Your task to perform on an android device: change keyboard looks Image 0: 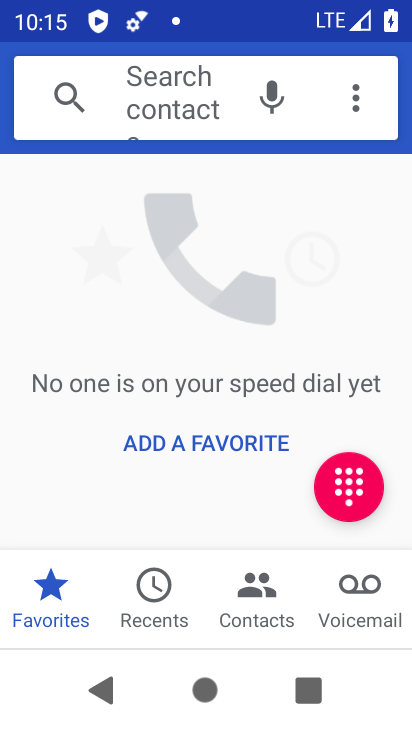
Step 0: press back button
Your task to perform on an android device: change keyboard looks Image 1: 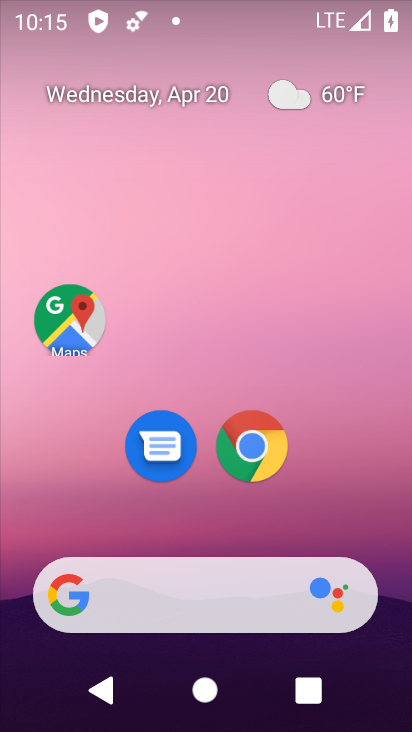
Step 1: drag from (348, 533) to (234, 16)
Your task to perform on an android device: change keyboard looks Image 2: 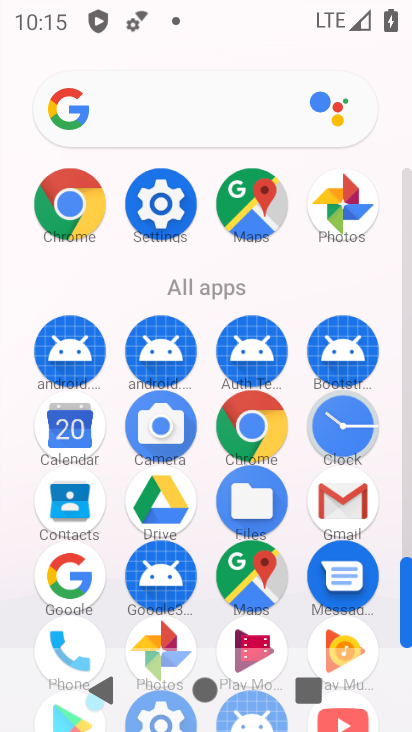
Step 2: click (161, 196)
Your task to perform on an android device: change keyboard looks Image 3: 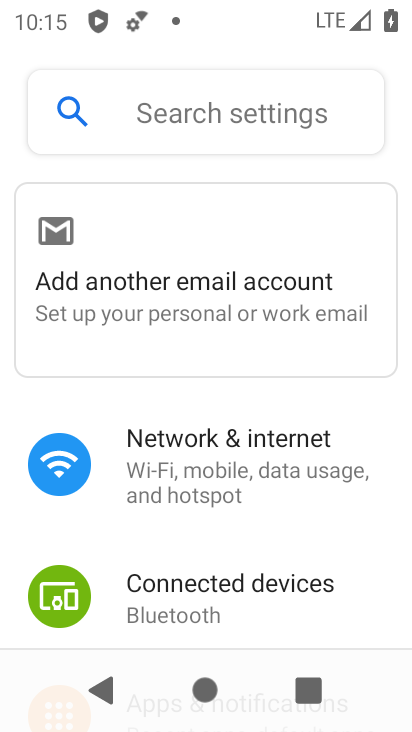
Step 3: drag from (299, 549) to (275, 139)
Your task to perform on an android device: change keyboard looks Image 4: 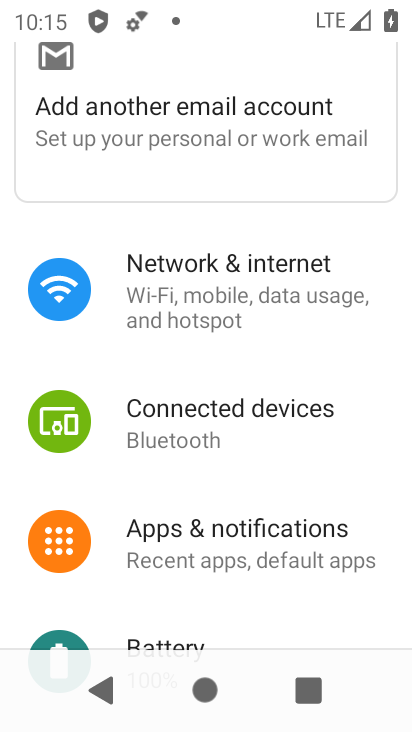
Step 4: drag from (293, 517) to (288, 144)
Your task to perform on an android device: change keyboard looks Image 5: 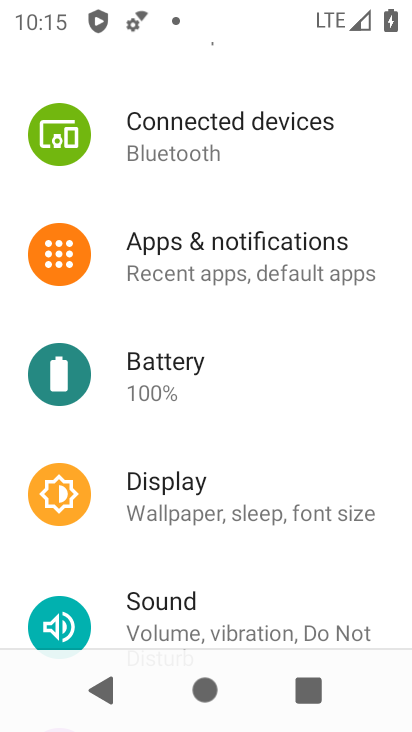
Step 5: drag from (298, 547) to (298, 198)
Your task to perform on an android device: change keyboard looks Image 6: 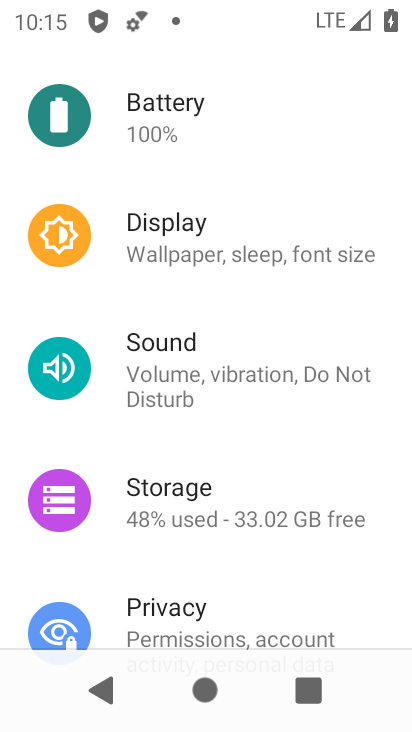
Step 6: drag from (241, 533) to (226, 107)
Your task to perform on an android device: change keyboard looks Image 7: 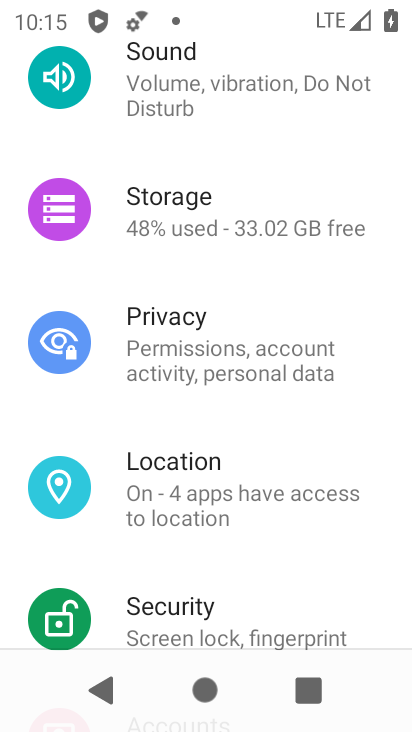
Step 7: drag from (272, 548) to (236, 93)
Your task to perform on an android device: change keyboard looks Image 8: 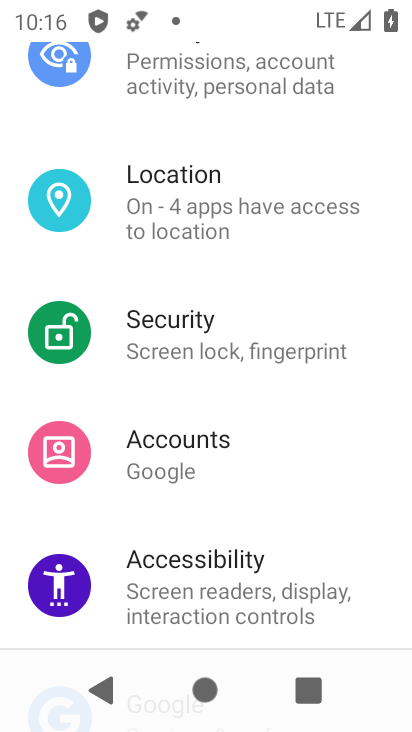
Step 8: drag from (257, 524) to (233, 109)
Your task to perform on an android device: change keyboard looks Image 9: 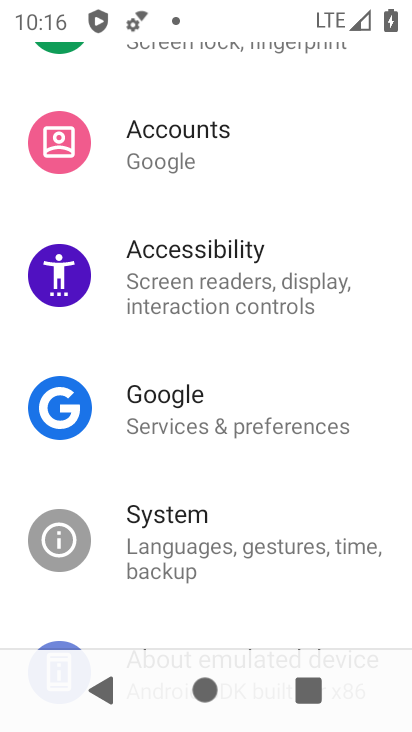
Step 9: drag from (268, 470) to (248, 125)
Your task to perform on an android device: change keyboard looks Image 10: 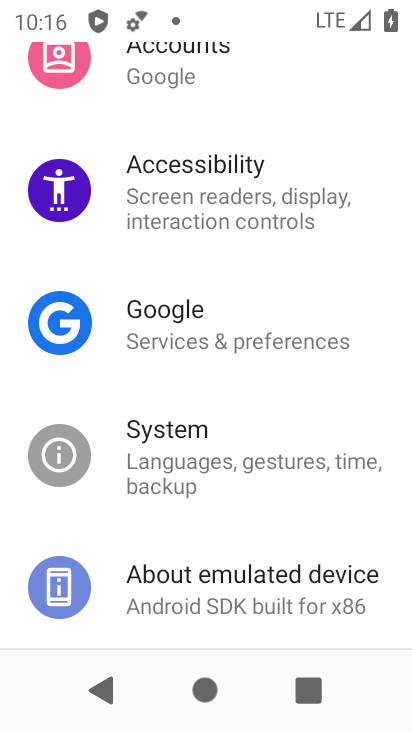
Step 10: drag from (239, 564) to (242, 176)
Your task to perform on an android device: change keyboard looks Image 11: 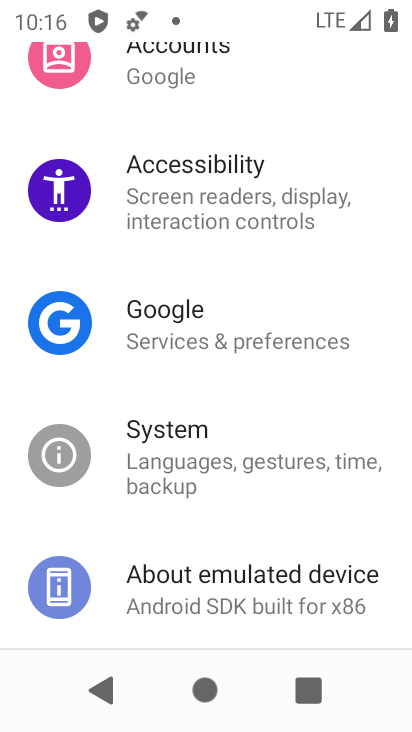
Step 11: click (223, 464)
Your task to perform on an android device: change keyboard looks Image 12: 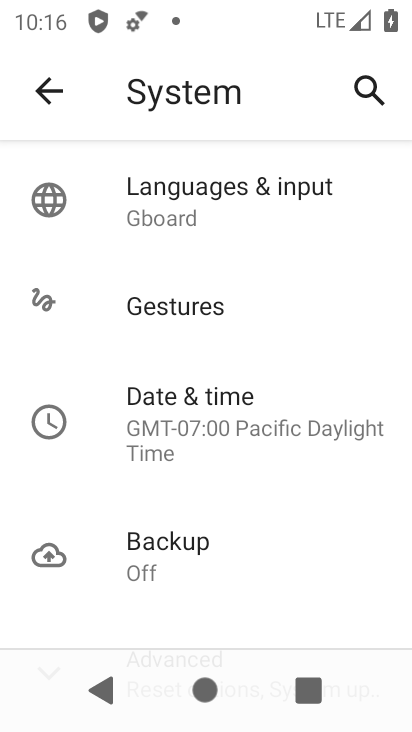
Step 12: drag from (228, 492) to (213, 178)
Your task to perform on an android device: change keyboard looks Image 13: 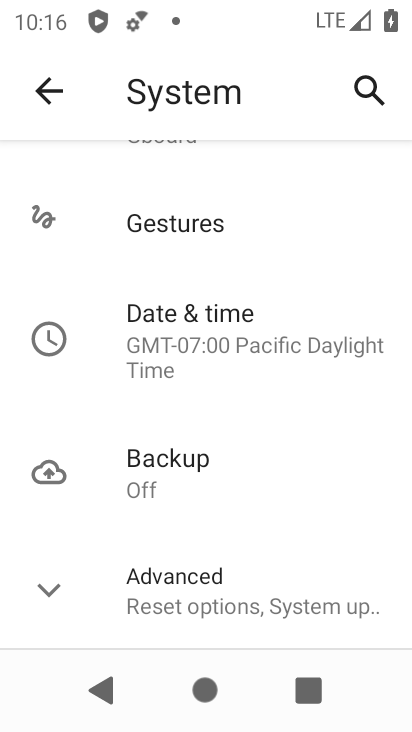
Step 13: click (107, 574)
Your task to perform on an android device: change keyboard looks Image 14: 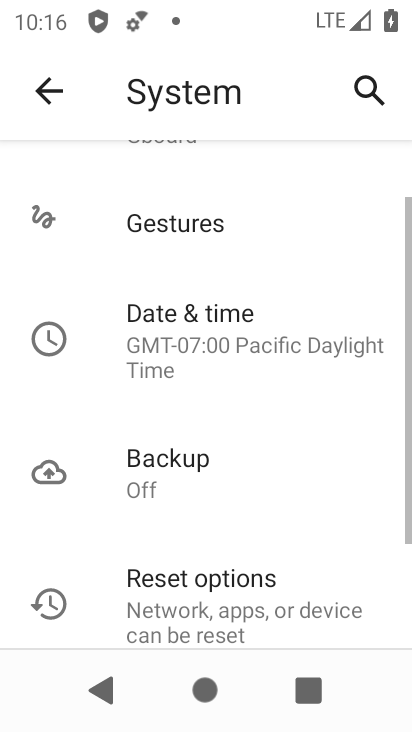
Step 14: drag from (253, 509) to (242, 186)
Your task to perform on an android device: change keyboard looks Image 15: 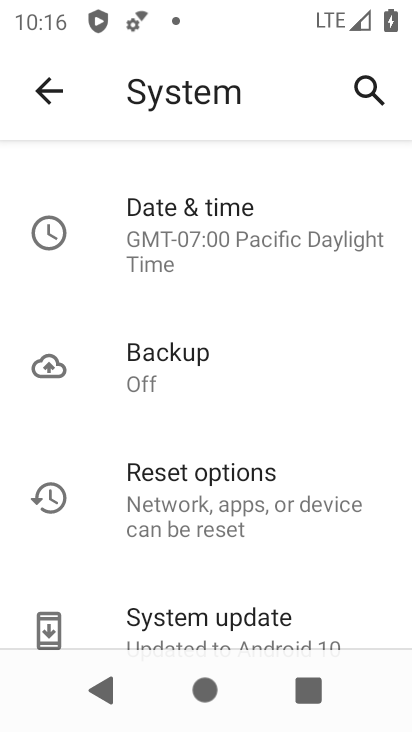
Step 15: drag from (271, 529) to (268, 204)
Your task to perform on an android device: change keyboard looks Image 16: 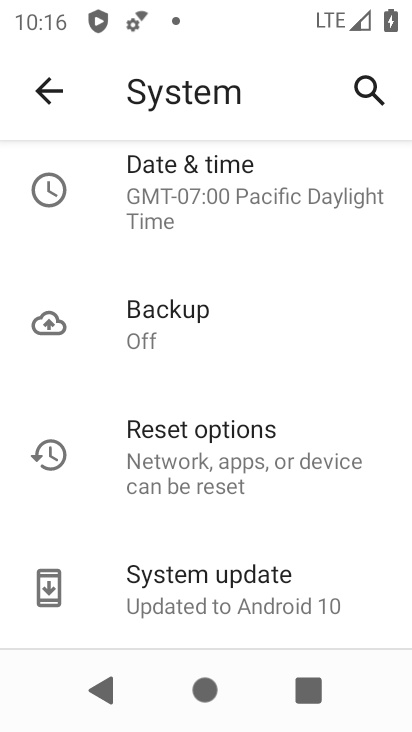
Step 16: drag from (252, 166) to (291, 517)
Your task to perform on an android device: change keyboard looks Image 17: 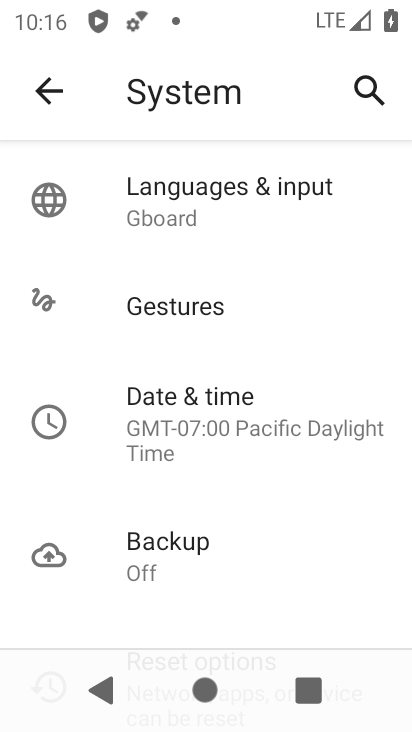
Step 17: click (225, 192)
Your task to perform on an android device: change keyboard looks Image 18: 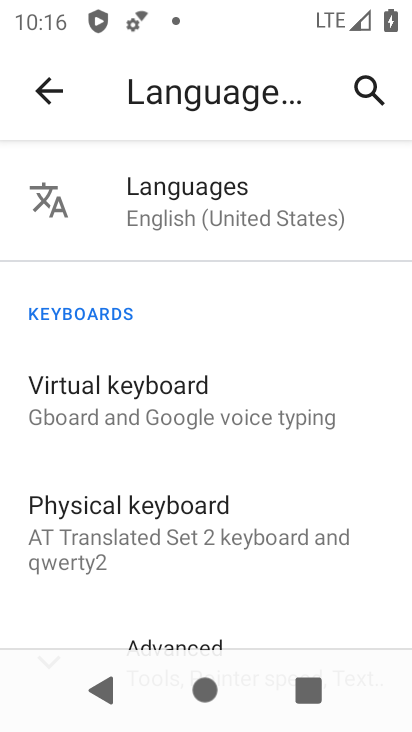
Step 18: click (166, 393)
Your task to perform on an android device: change keyboard looks Image 19: 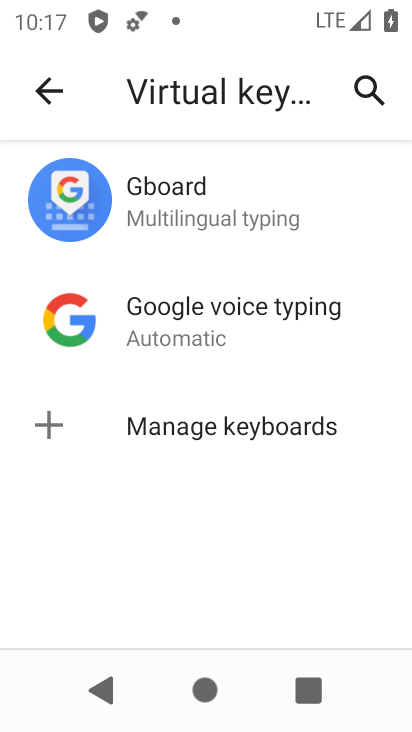
Step 19: click (214, 302)
Your task to perform on an android device: change keyboard looks Image 20: 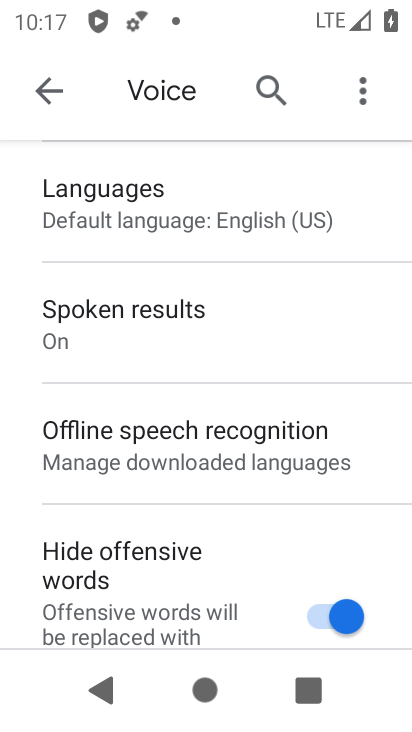
Step 20: drag from (208, 521) to (214, 223)
Your task to perform on an android device: change keyboard looks Image 21: 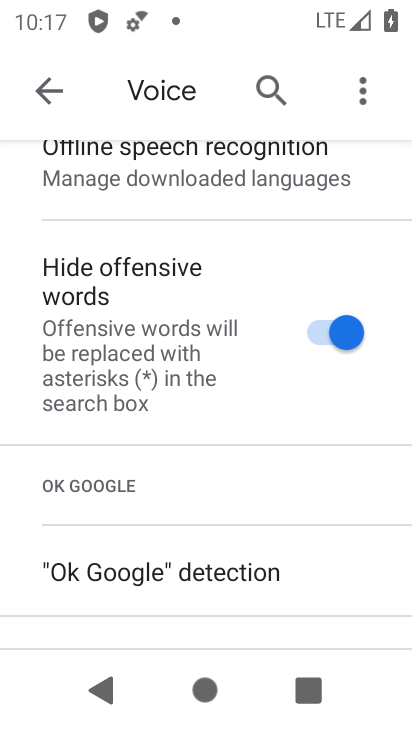
Step 21: click (36, 80)
Your task to perform on an android device: change keyboard looks Image 22: 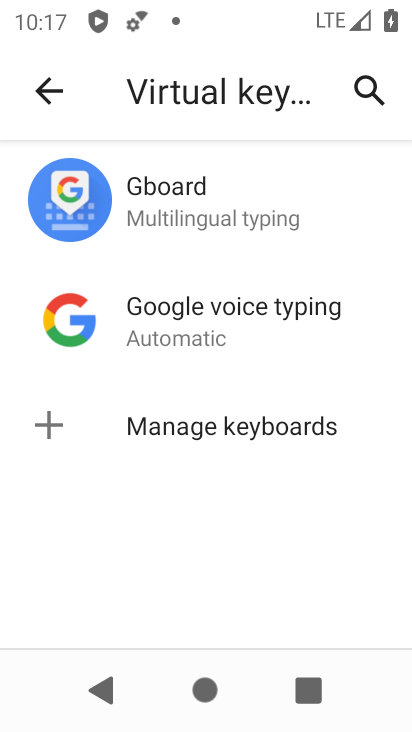
Step 22: click (180, 176)
Your task to perform on an android device: change keyboard looks Image 23: 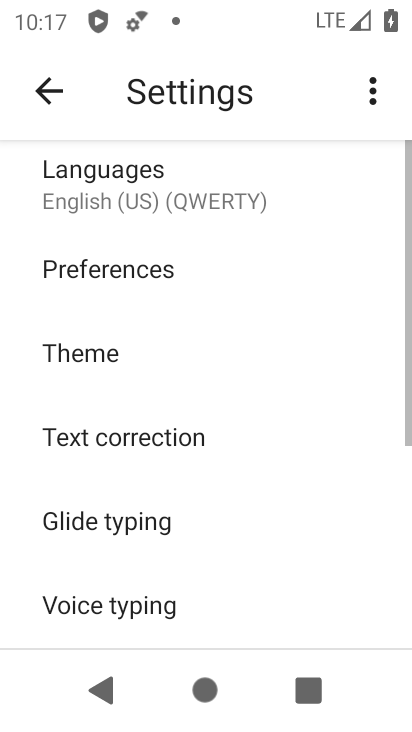
Step 23: click (139, 347)
Your task to perform on an android device: change keyboard looks Image 24: 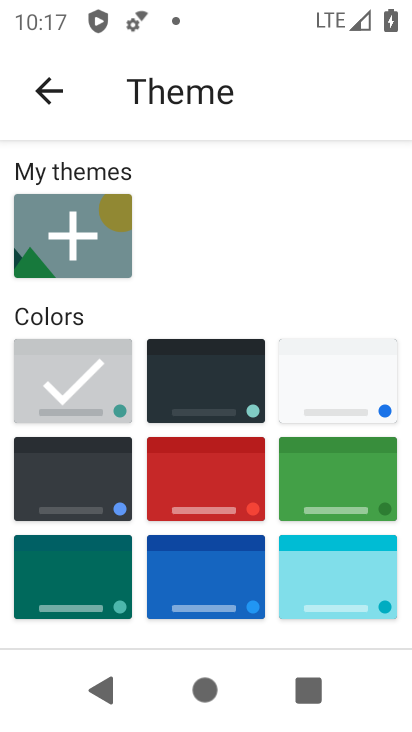
Step 24: click (350, 573)
Your task to perform on an android device: change keyboard looks Image 25: 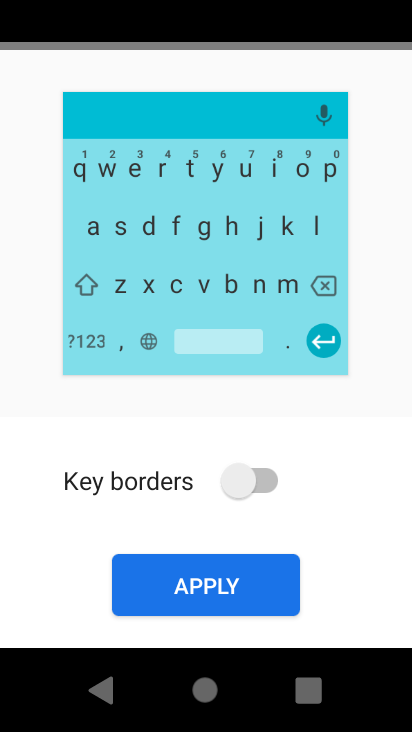
Step 25: click (253, 577)
Your task to perform on an android device: change keyboard looks Image 26: 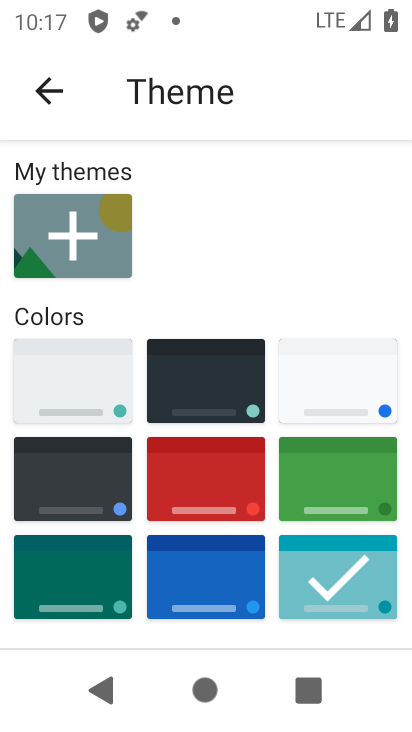
Step 26: task complete